Your task to perform on an android device: Show me popular videos on Youtube Image 0: 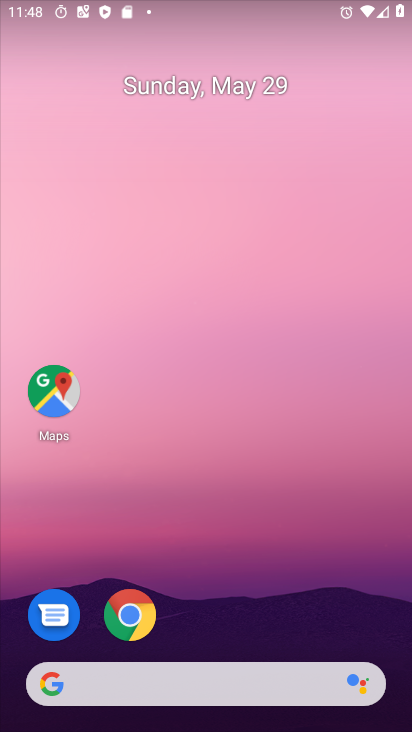
Step 0: drag from (226, 594) to (211, 56)
Your task to perform on an android device: Show me popular videos on Youtube Image 1: 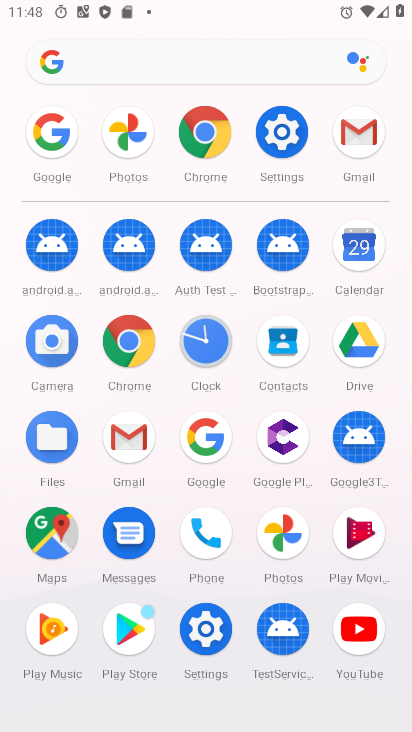
Step 1: click (361, 627)
Your task to perform on an android device: Show me popular videos on Youtube Image 2: 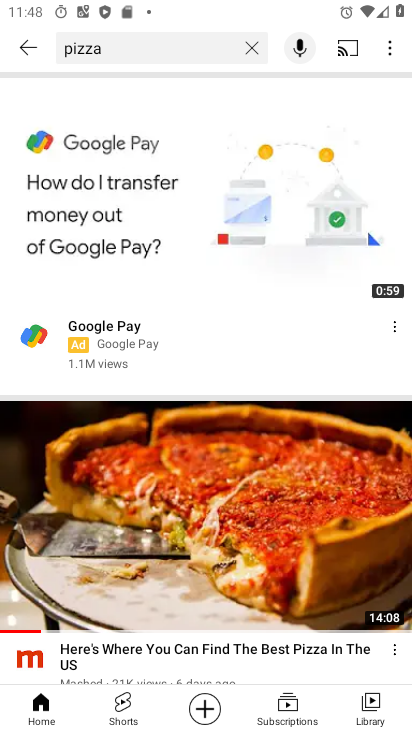
Step 2: click (257, 40)
Your task to perform on an android device: Show me popular videos on Youtube Image 3: 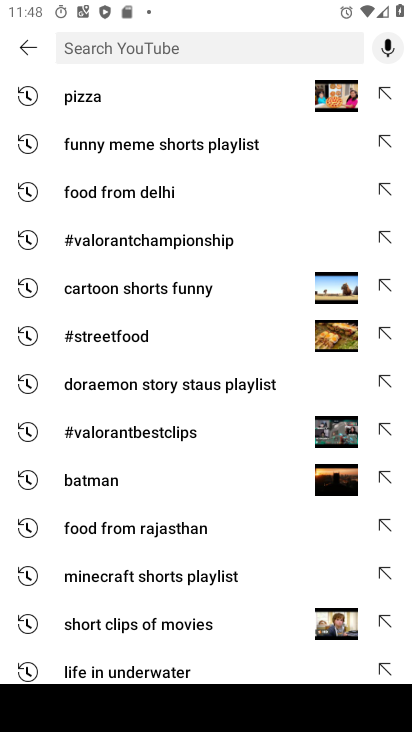
Step 3: press back button
Your task to perform on an android device: Show me popular videos on Youtube Image 4: 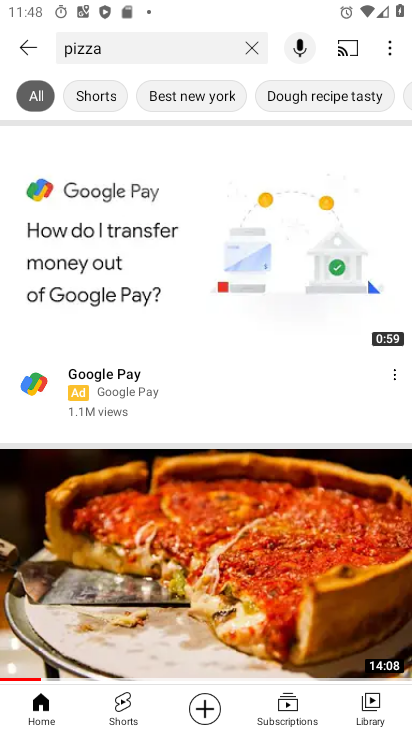
Step 4: click (38, 706)
Your task to perform on an android device: Show me popular videos on Youtube Image 5: 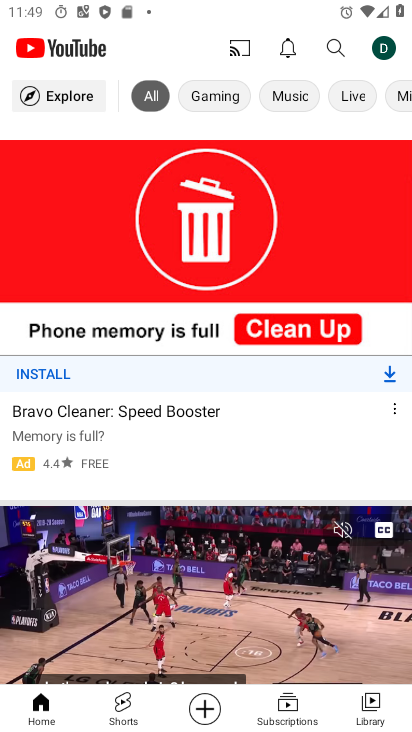
Step 5: task complete